Your task to perform on an android device: Open Youtube and go to the subscriptions tab Image 0: 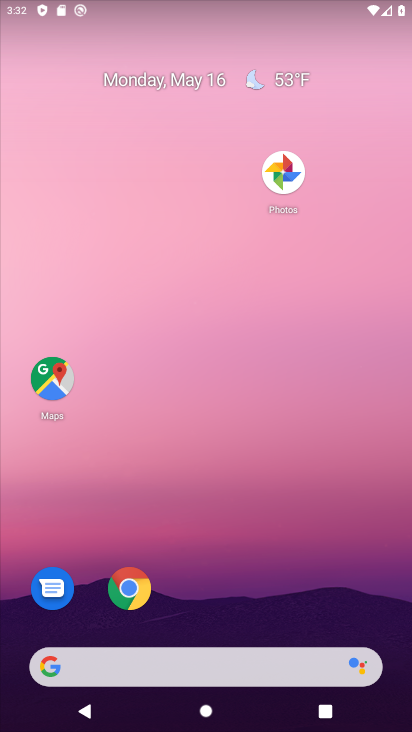
Step 0: drag from (214, 609) to (307, 151)
Your task to perform on an android device: Open Youtube and go to the subscriptions tab Image 1: 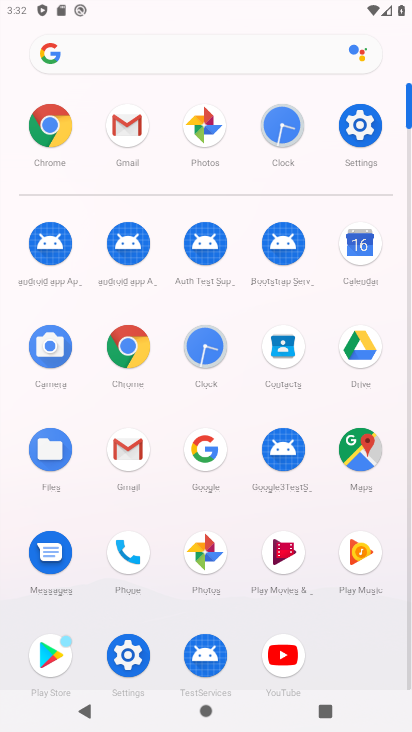
Step 1: click (272, 644)
Your task to perform on an android device: Open Youtube and go to the subscriptions tab Image 2: 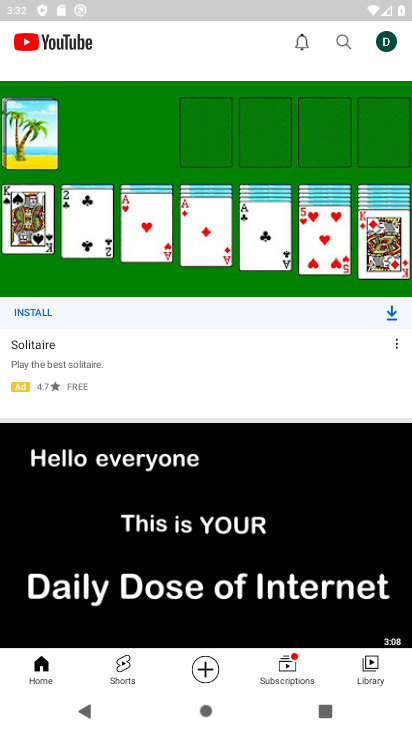
Step 2: click (279, 681)
Your task to perform on an android device: Open Youtube and go to the subscriptions tab Image 3: 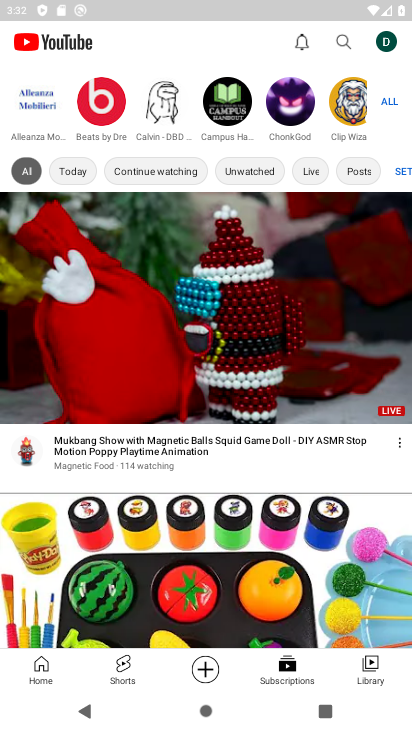
Step 3: task complete